Your task to perform on an android device: Open Google Maps Image 0: 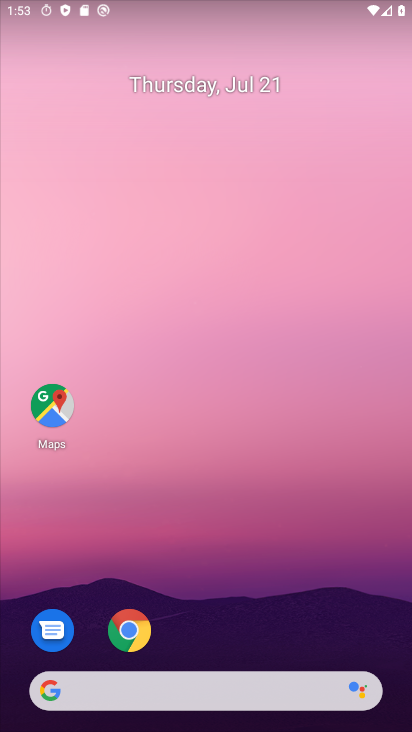
Step 0: click (52, 408)
Your task to perform on an android device: Open Google Maps Image 1: 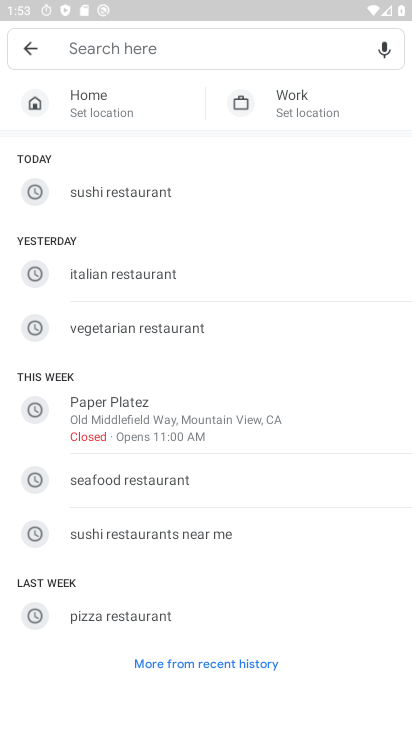
Step 1: task complete